Your task to perform on an android device: allow notifications from all sites in the chrome app Image 0: 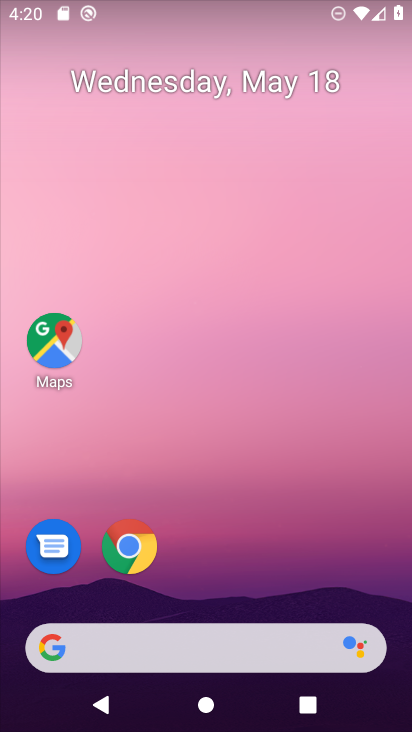
Step 0: drag from (201, 584) to (277, 158)
Your task to perform on an android device: allow notifications from all sites in the chrome app Image 1: 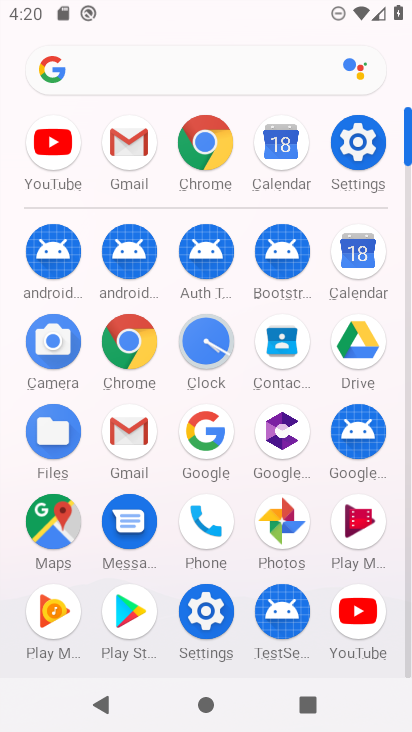
Step 1: click (119, 356)
Your task to perform on an android device: allow notifications from all sites in the chrome app Image 2: 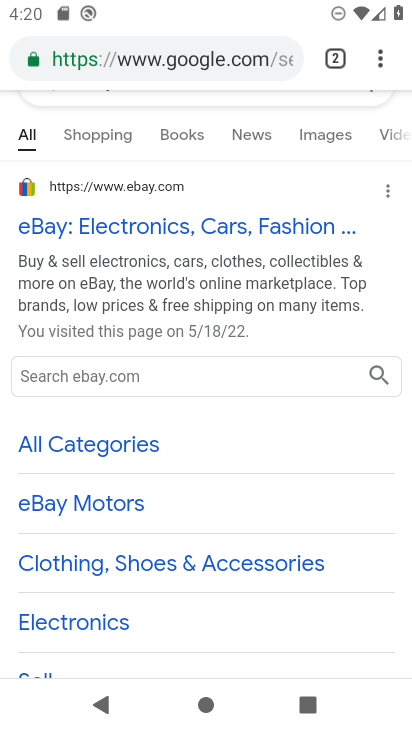
Step 2: click (369, 54)
Your task to perform on an android device: allow notifications from all sites in the chrome app Image 3: 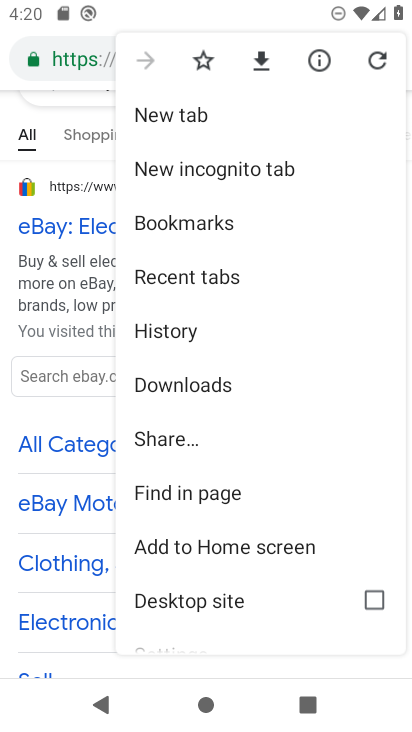
Step 3: drag from (171, 518) to (207, 346)
Your task to perform on an android device: allow notifications from all sites in the chrome app Image 4: 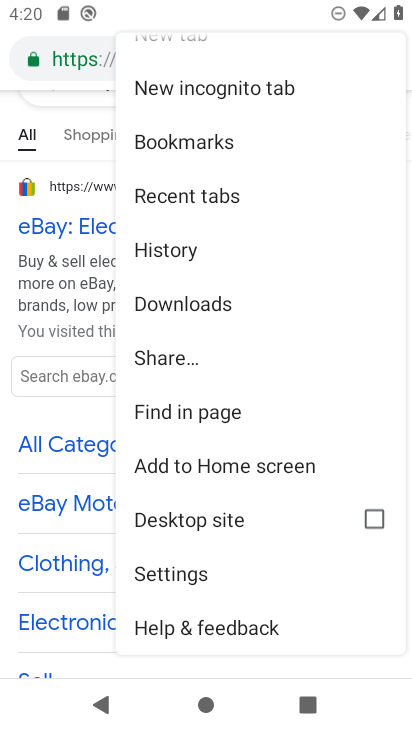
Step 4: click (192, 569)
Your task to perform on an android device: allow notifications from all sites in the chrome app Image 5: 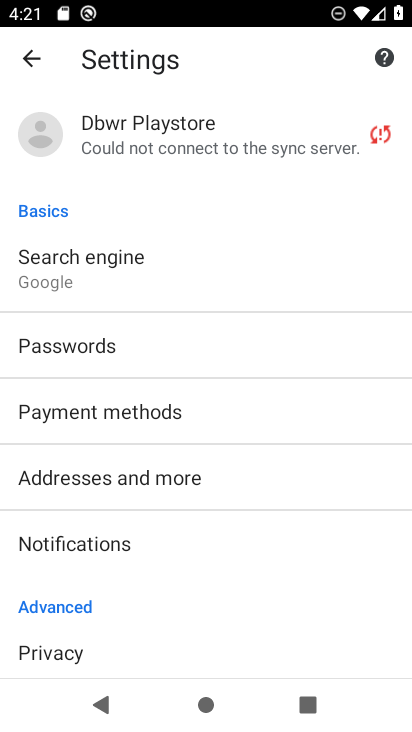
Step 5: click (85, 537)
Your task to perform on an android device: allow notifications from all sites in the chrome app Image 6: 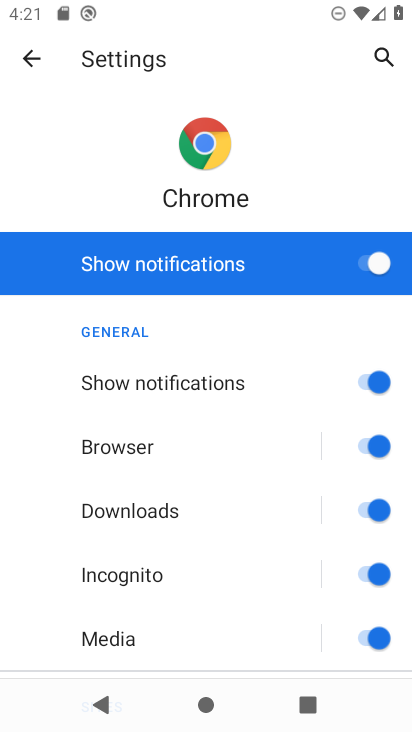
Step 6: task complete